Your task to perform on an android device: Go to sound settings Image 0: 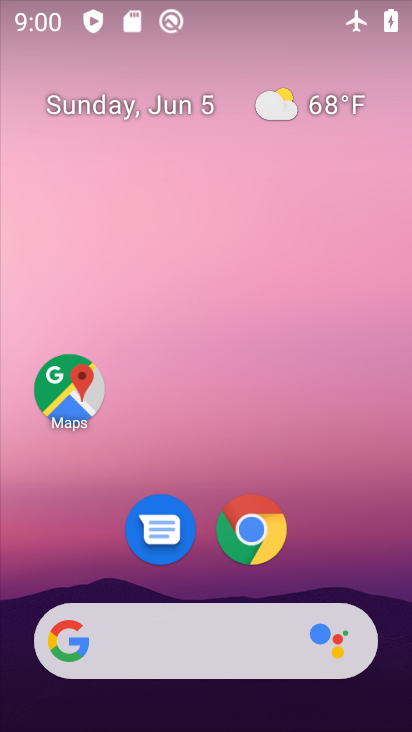
Step 0: drag from (300, 707) to (317, 317)
Your task to perform on an android device: Go to sound settings Image 1: 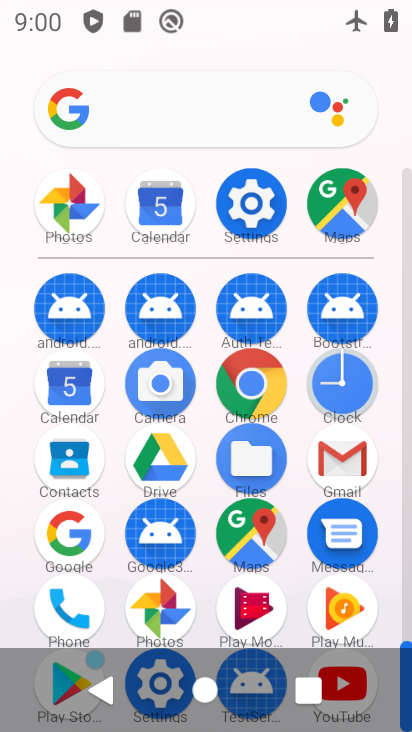
Step 1: click (233, 204)
Your task to perform on an android device: Go to sound settings Image 2: 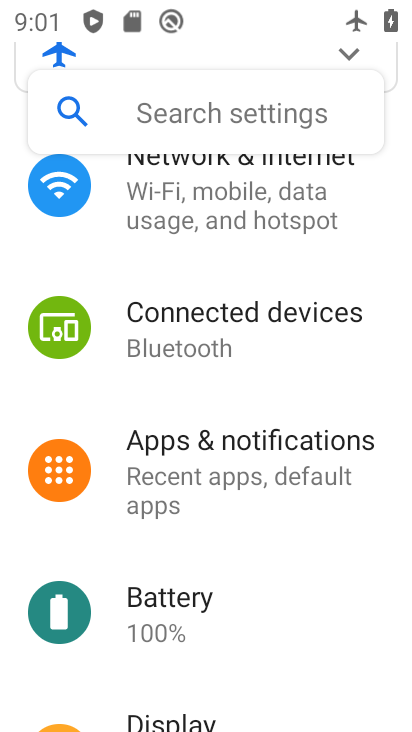
Step 2: drag from (258, 634) to (324, 161)
Your task to perform on an android device: Go to sound settings Image 3: 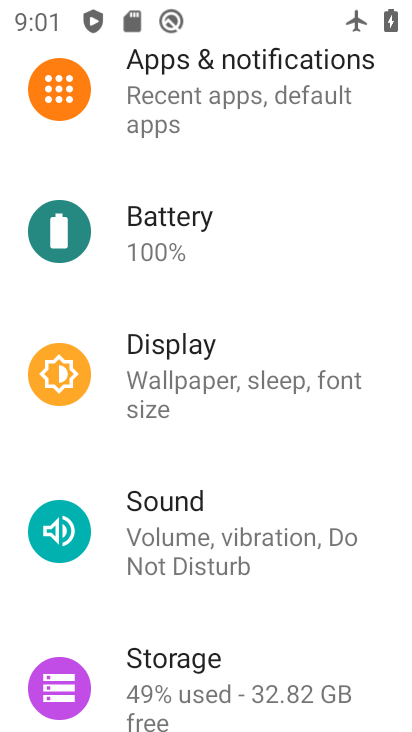
Step 3: click (190, 529)
Your task to perform on an android device: Go to sound settings Image 4: 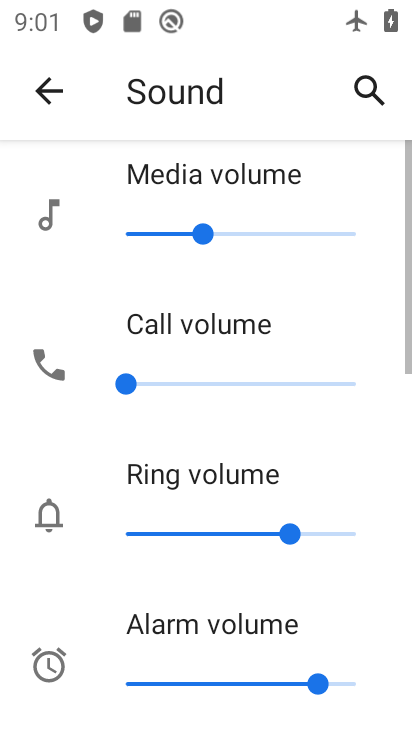
Step 4: task complete